Your task to perform on an android device: change timer sound Image 0: 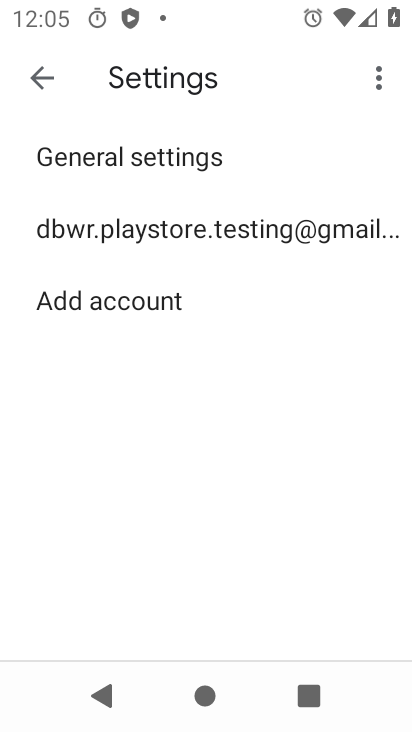
Step 0: press back button
Your task to perform on an android device: change timer sound Image 1: 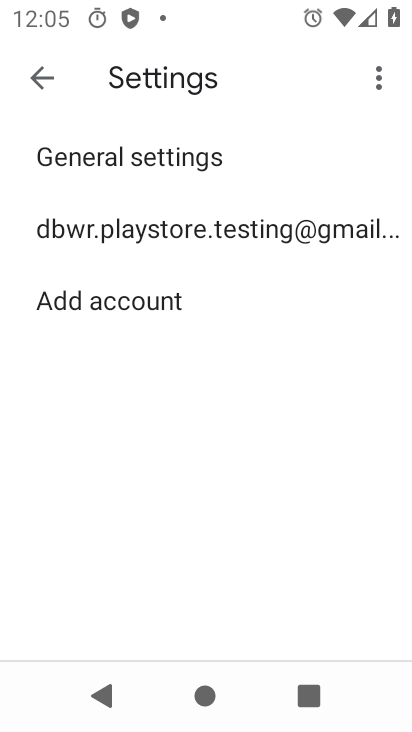
Step 1: press back button
Your task to perform on an android device: change timer sound Image 2: 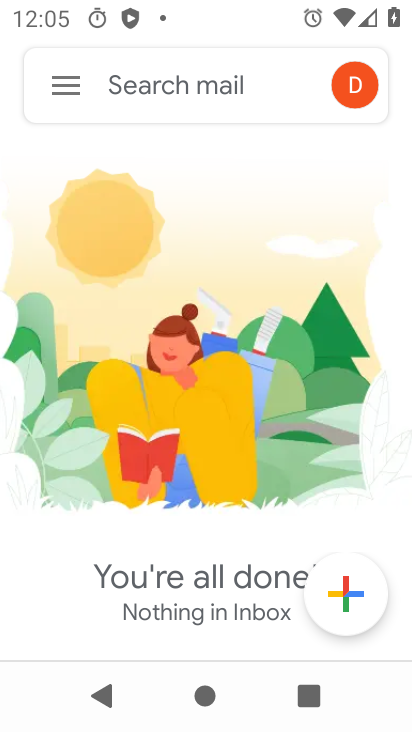
Step 2: press back button
Your task to perform on an android device: change timer sound Image 3: 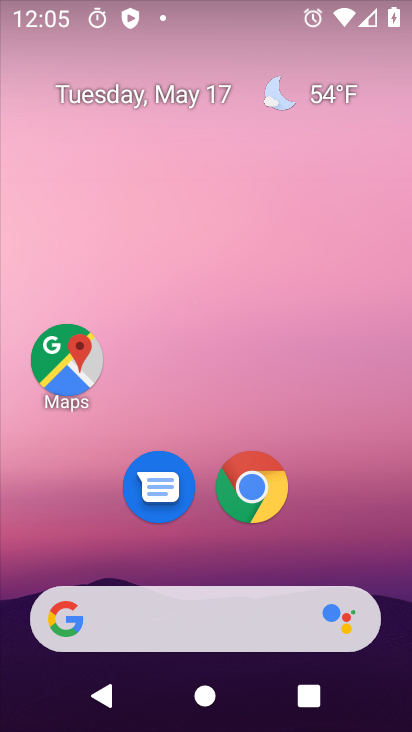
Step 3: drag from (153, 534) to (209, 2)
Your task to perform on an android device: change timer sound Image 4: 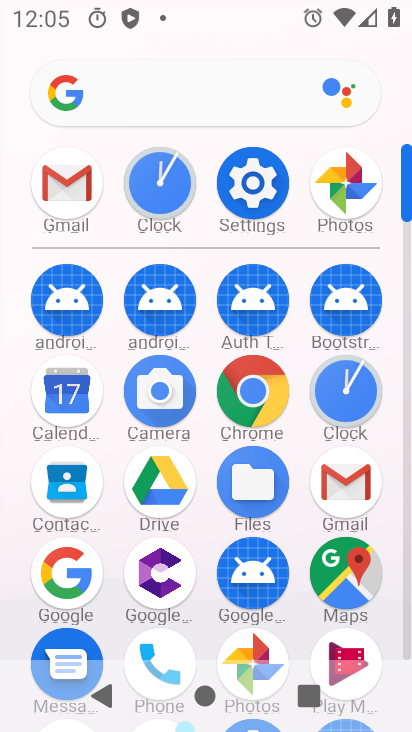
Step 4: click (257, 177)
Your task to perform on an android device: change timer sound Image 5: 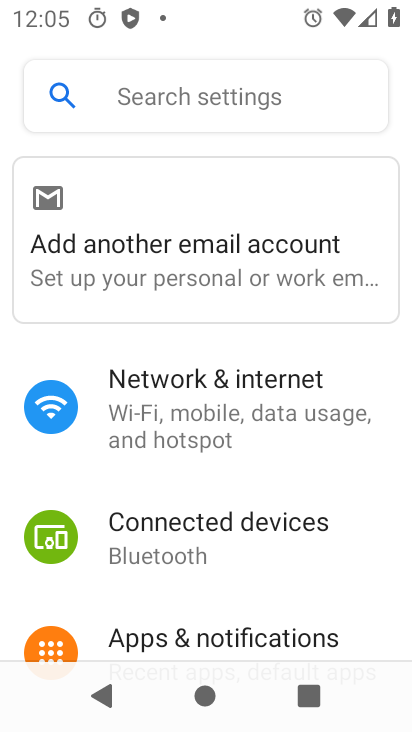
Step 5: drag from (217, 572) to (260, 74)
Your task to perform on an android device: change timer sound Image 6: 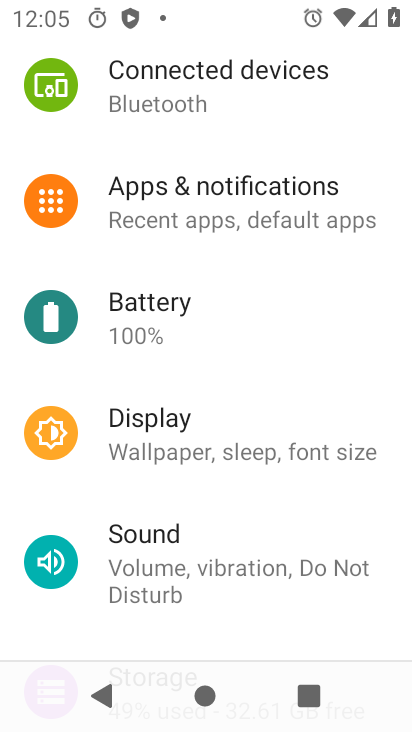
Step 6: click (191, 561)
Your task to perform on an android device: change timer sound Image 7: 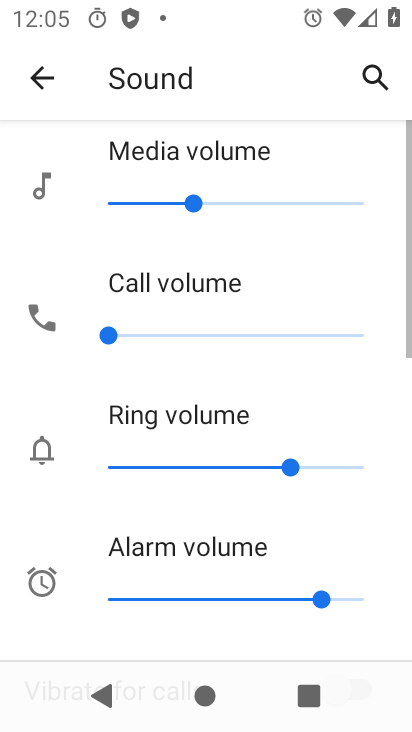
Step 7: press back button
Your task to perform on an android device: change timer sound Image 8: 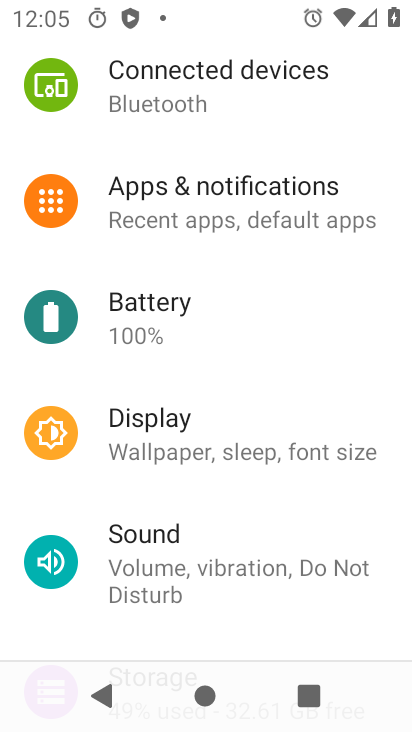
Step 8: press back button
Your task to perform on an android device: change timer sound Image 9: 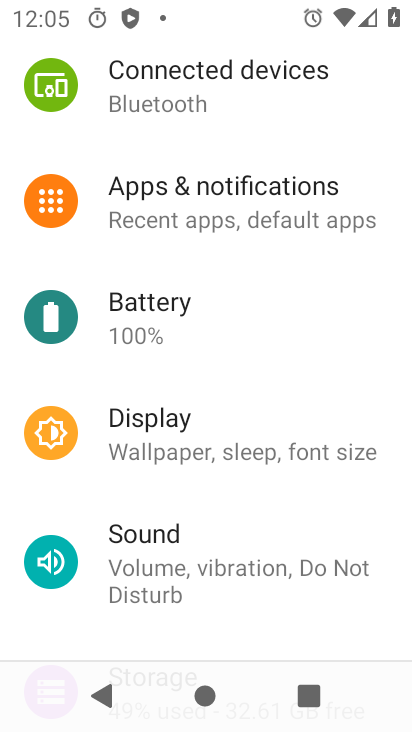
Step 9: press back button
Your task to perform on an android device: change timer sound Image 10: 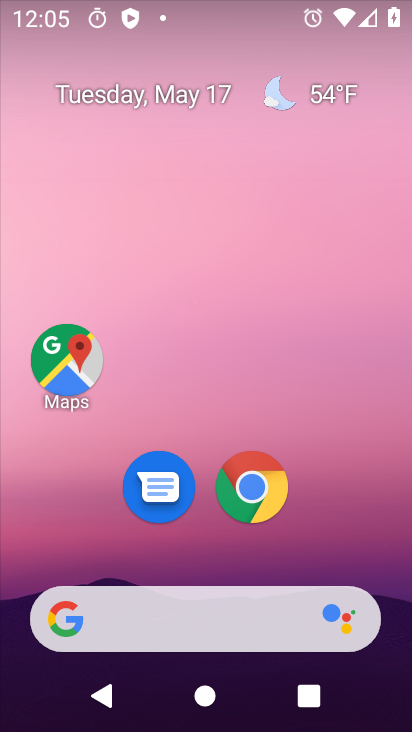
Step 10: drag from (217, 494) to (234, 49)
Your task to perform on an android device: change timer sound Image 11: 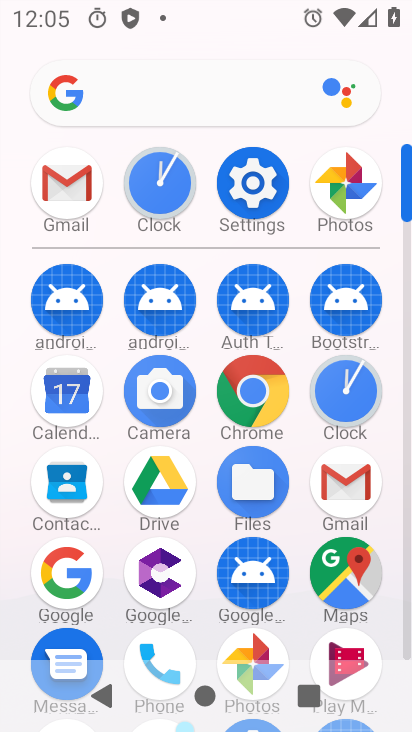
Step 11: click (351, 401)
Your task to perform on an android device: change timer sound Image 12: 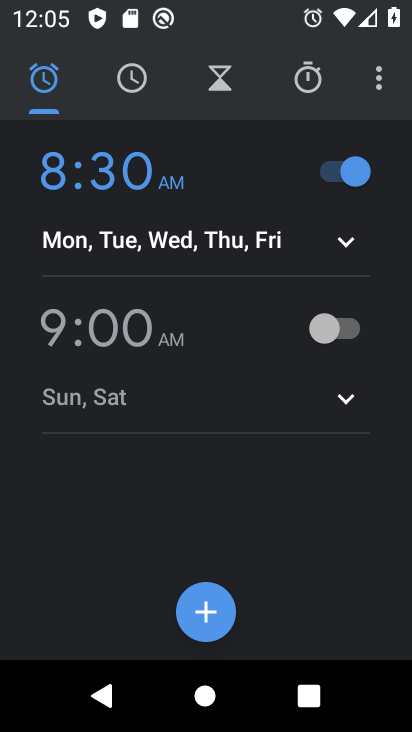
Step 12: click (370, 88)
Your task to perform on an android device: change timer sound Image 13: 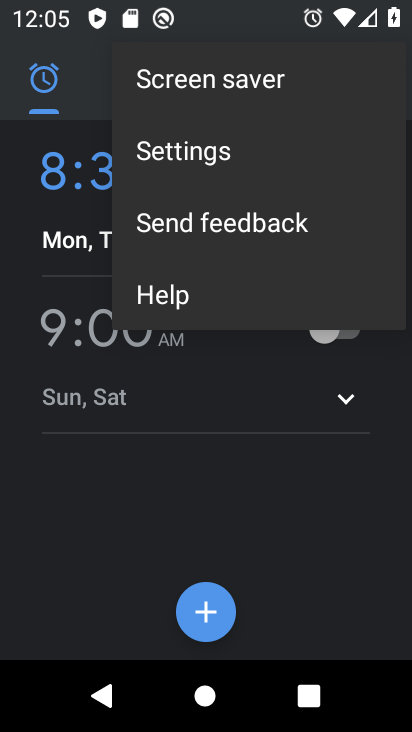
Step 13: click (240, 154)
Your task to perform on an android device: change timer sound Image 14: 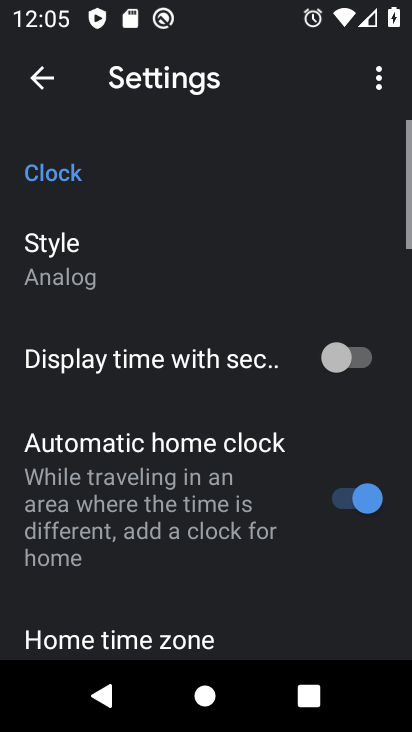
Step 14: drag from (150, 543) to (193, 92)
Your task to perform on an android device: change timer sound Image 15: 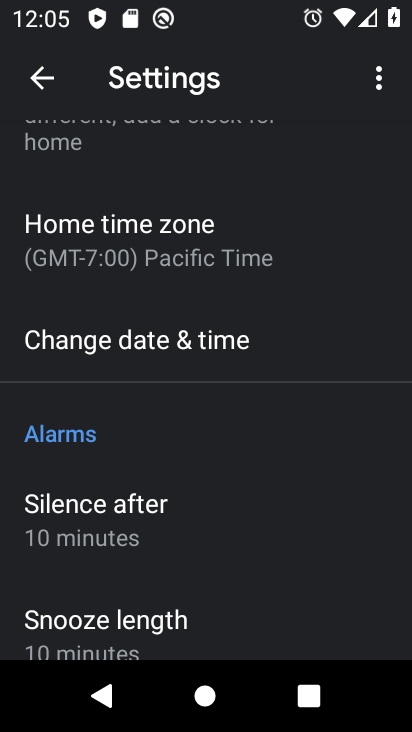
Step 15: drag from (128, 543) to (154, 139)
Your task to perform on an android device: change timer sound Image 16: 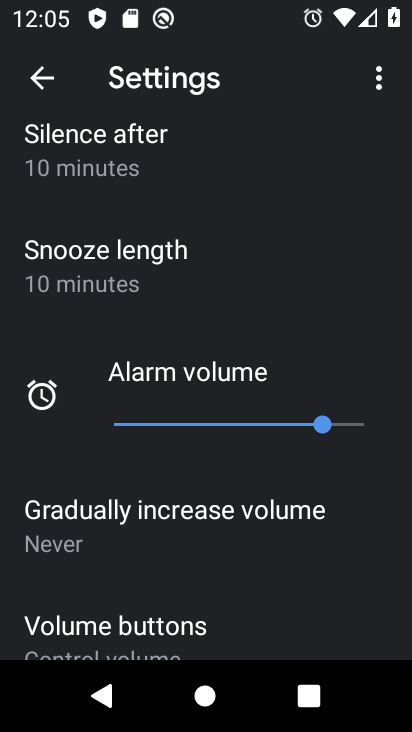
Step 16: drag from (181, 572) to (227, 60)
Your task to perform on an android device: change timer sound Image 17: 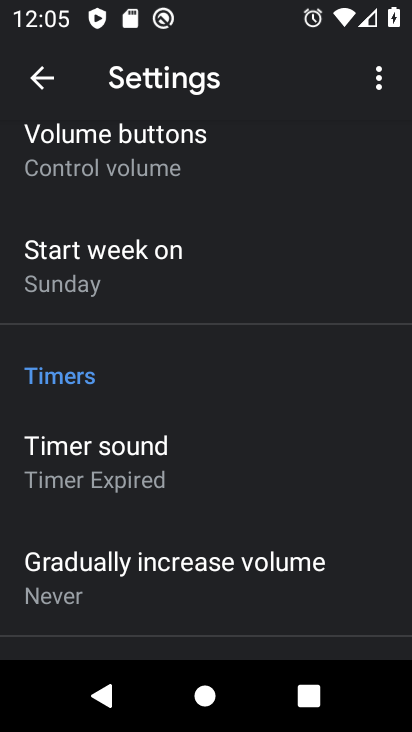
Step 17: click (129, 458)
Your task to perform on an android device: change timer sound Image 18: 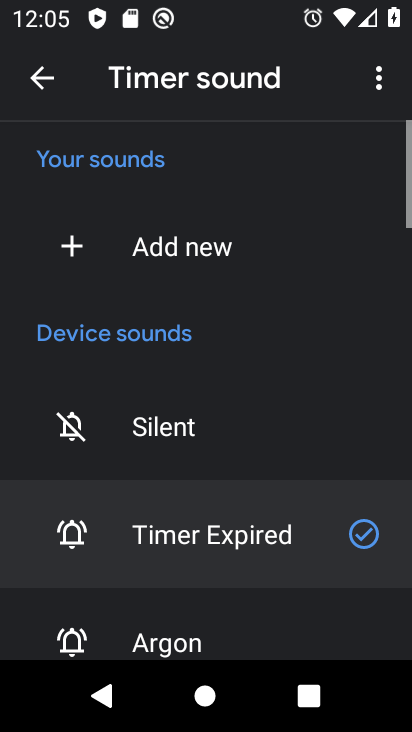
Step 18: task complete